Your task to perform on an android device: toggle sleep mode Image 0: 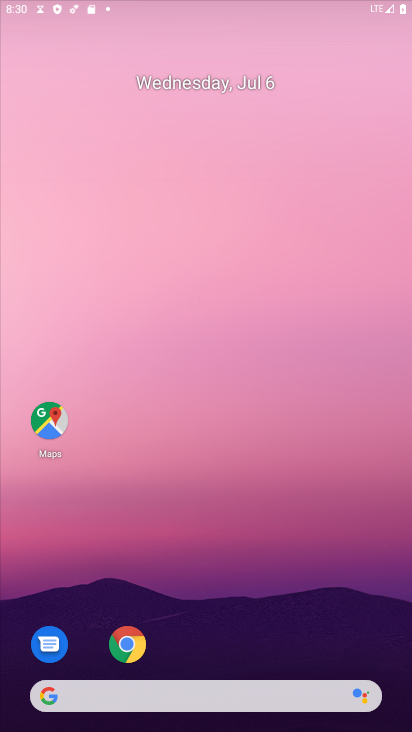
Step 0: drag from (203, 636) to (169, 177)
Your task to perform on an android device: toggle sleep mode Image 1: 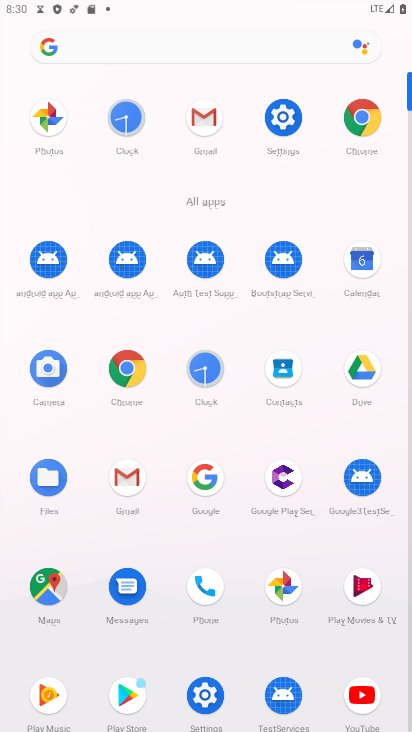
Step 1: click (289, 120)
Your task to perform on an android device: toggle sleep mode Image 2: 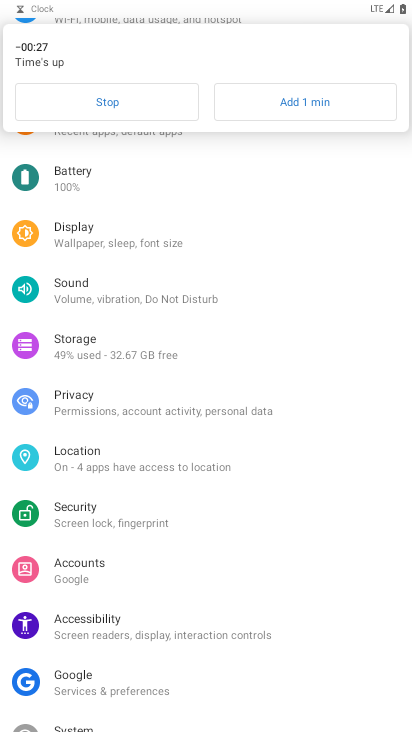
Step 2: click (153, 108)
Your task to perform on an android device: toggle sleep mode Image 3: 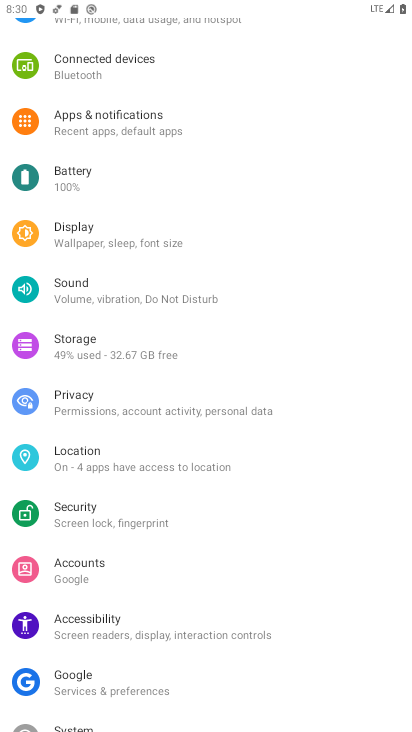
Step 3: click (109, 237)
Your task to perform on an android device: toggle sleep mode Image 4: 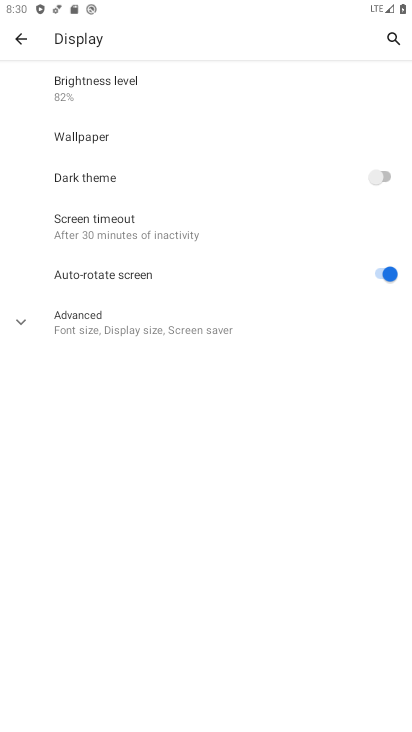
Step 4: click (131, 327)
Your task to perform on an android device: toggle sleep mode Image 5: 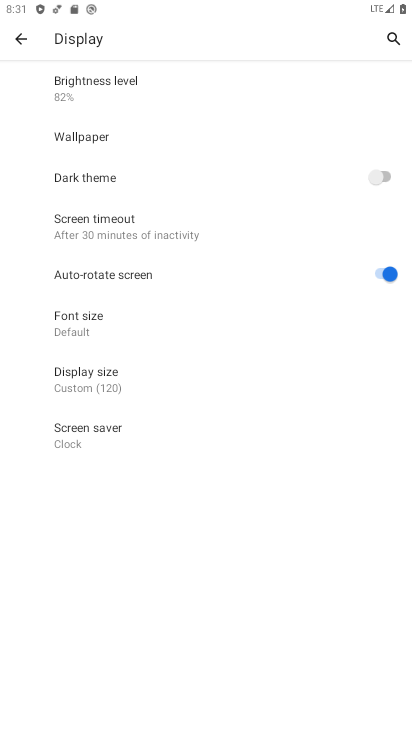
Step 5: click (128, 238)
Your task to perform on an android device: toggle sleep mode Image 6: 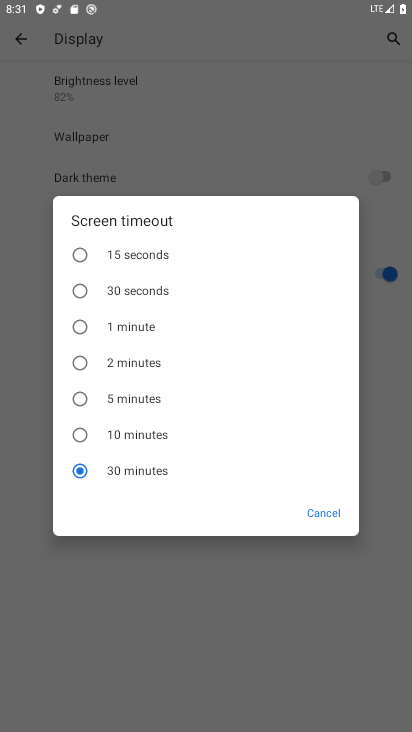
Step 6: click (142, 360)
Your task to perform on an android device: toggle sleep mode Image 7: 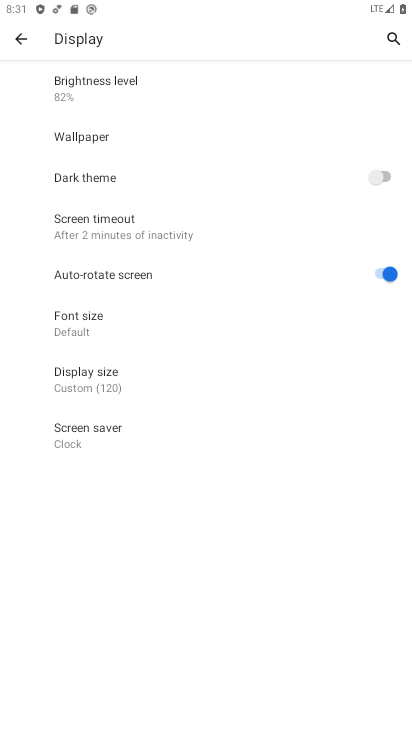
Step 7: task complete